Your task to perform on an android device: turn on airplane mode Image 0: 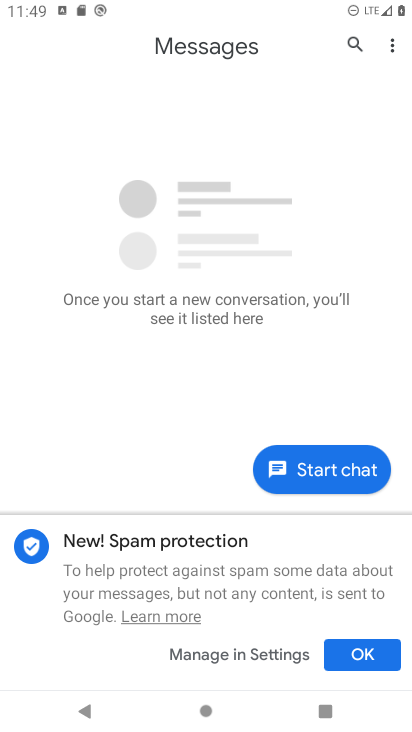
Step 0: press home button
Your task to perform on an android device: turn on airplane mode Image 1: 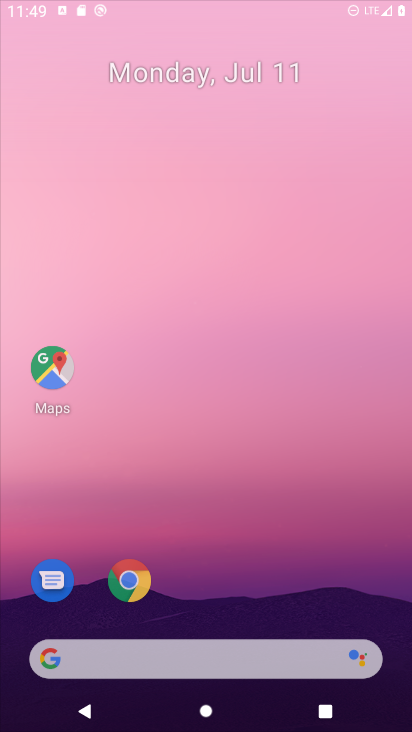
Step 1: drag from (395, 660) to (262, 91)
Your task to perform on an android device: turn on airplane mode Image 2: 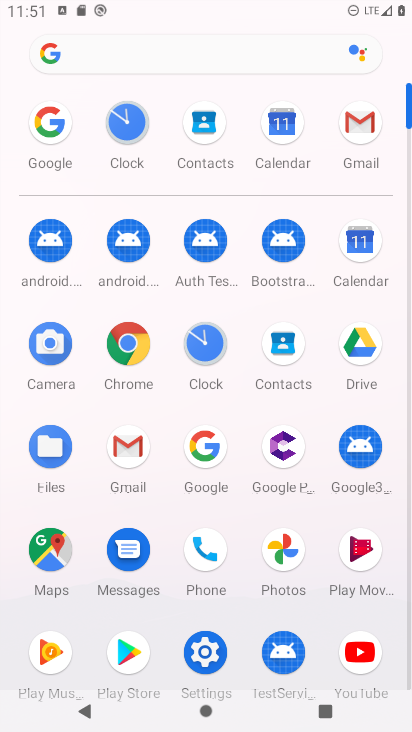
Step 2: drag from (290, 3) to (323, 718)
Your task to perform on an android device: turn on airplane mode Image 3: 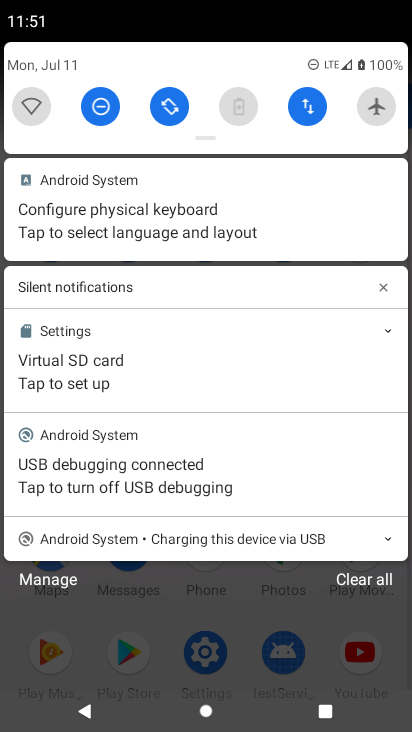
Step 3: click (374, 105)
Your task to perform on an android device: turn on airplane mode Image 4: 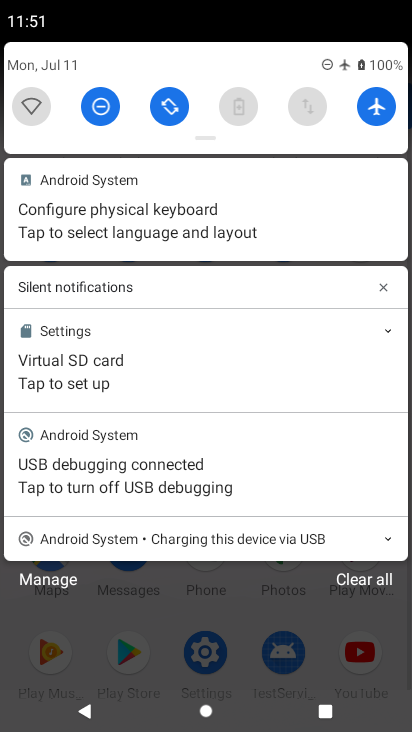
Step 4: task complete